Your task to perform on an android device: allow notifications from all sites in the chrome app Image 0: 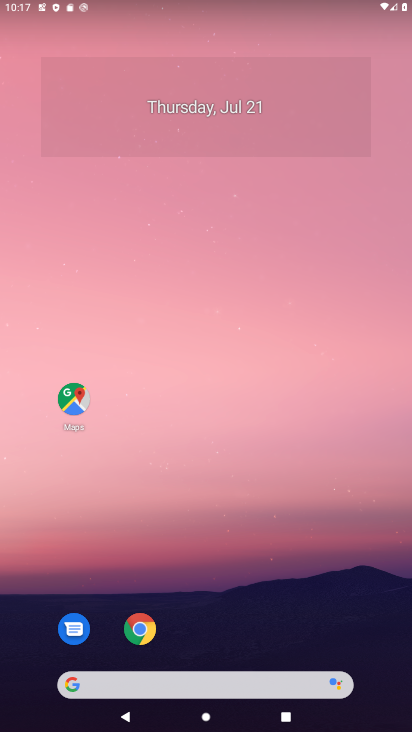
Step 0: click (191, 568)
Your task to perform on an android device: allow notifications from all sites in the chrome app Image 1: 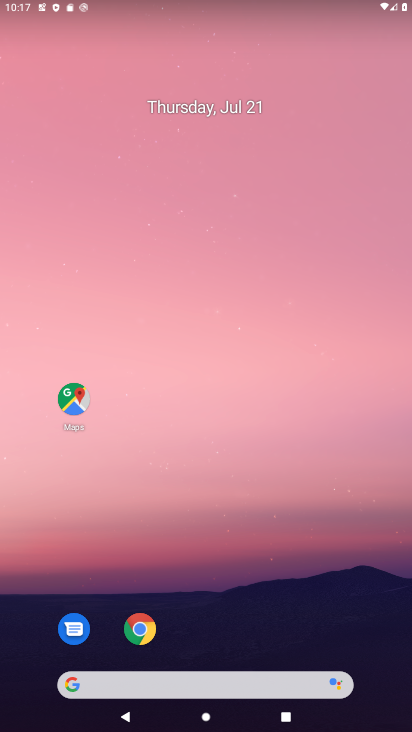
Step 1: click (146, 625)
Your task to perform on an android device: allow notifications from all sites in the chrome app Image 2: 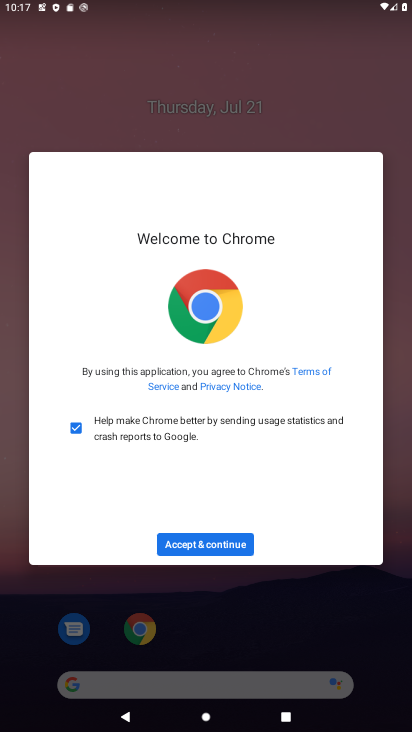
Step 2: click (180, 543)
Your task to perform on an android device: allow notifications from all sites in the chrome app Image 3: 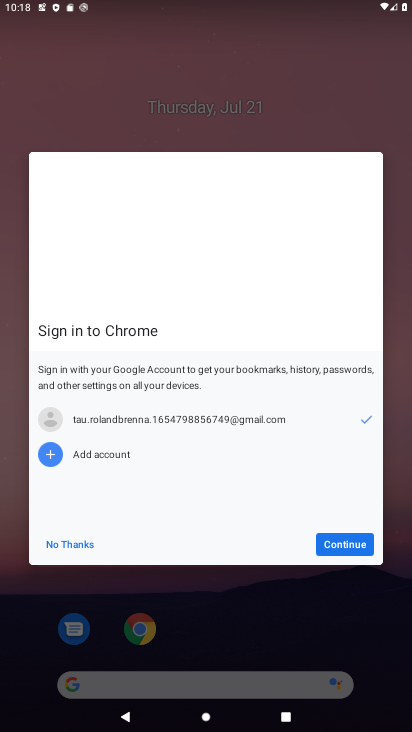
Step 3: click (344, 537)
Your task to perform on an android device: allow notifications from all sites in the chrome app Image 4: 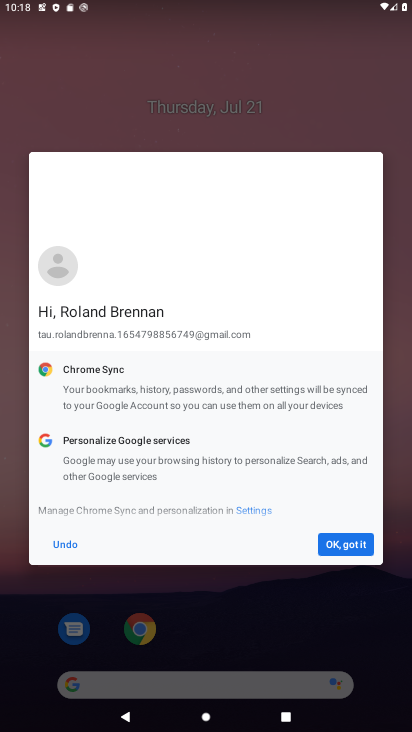
Step 4: click (344, 537)
Your task to perform on an android device: allow notifications from all sites in the chrome app Image 5: 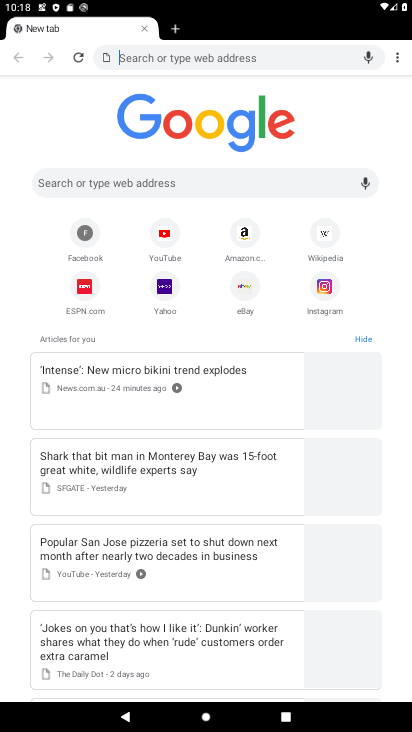
Step 5: task complete